Your task to perform on an android device: change the clock display to digital Image 0: 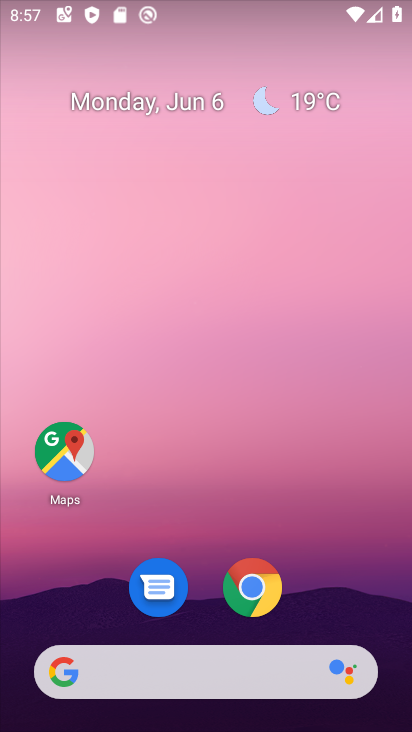
Step 0: drag from (194, 665) to (233, 204)
Your task to perform on an android device: change the clock display to digital Image 1: 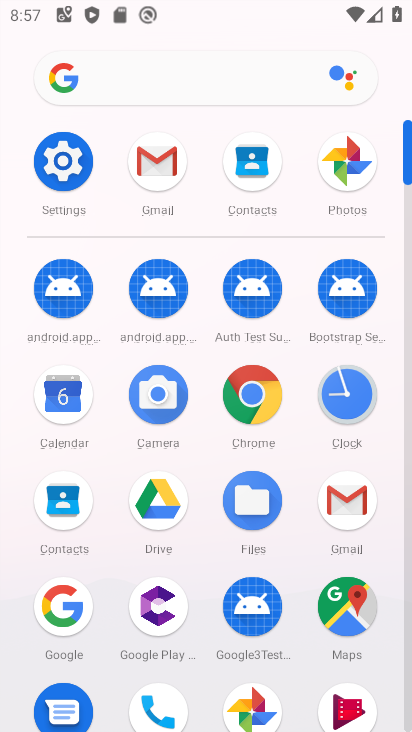
Step 1: click (335, 383)
Your task to perform on an android device: change the clock display to digital Image 2: 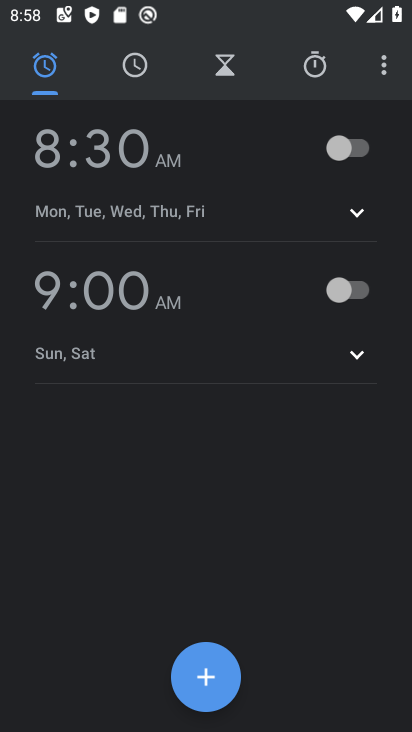
Step 2: click (375, 76)
Your task to perform on an android device: change the clock display to digital Image 3: 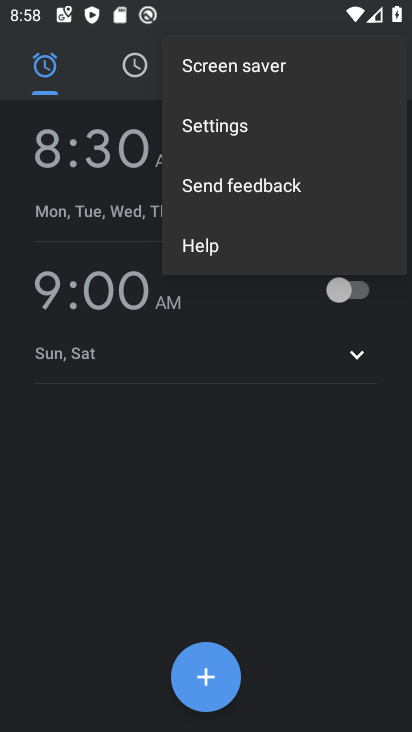
Step 3: click (234, 151)
Your task to perform on an android device: change the clock display to digital Image 4: 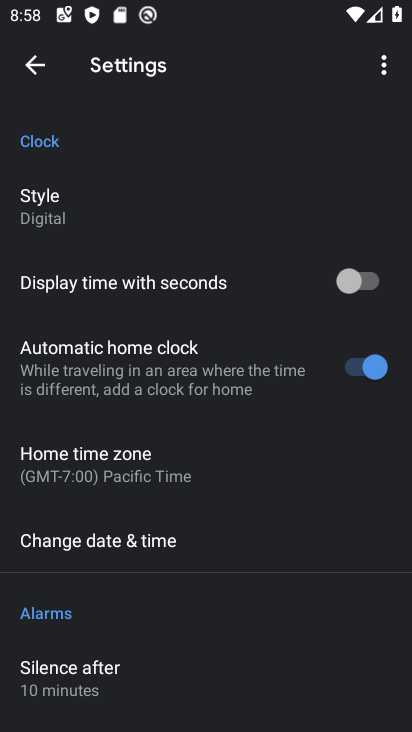
Step 4: click (115, 211)
Your task to perform on an android device: change the clock display to digital Image 5: 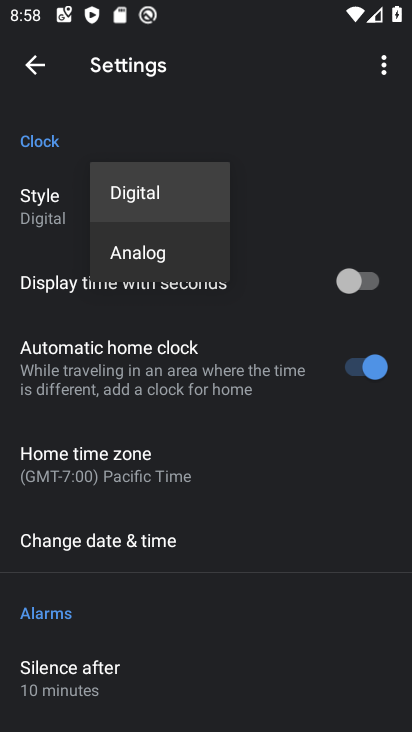
Step 5: click (152, 196)
Your task to perform on an android device: change the clock display to digital Image 6: 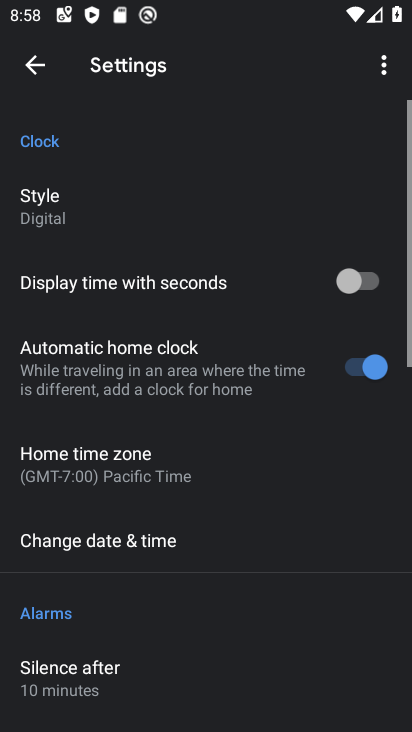
Step 6: task complete